Your task to perform on an android device: toggle airplane mode Image 0: 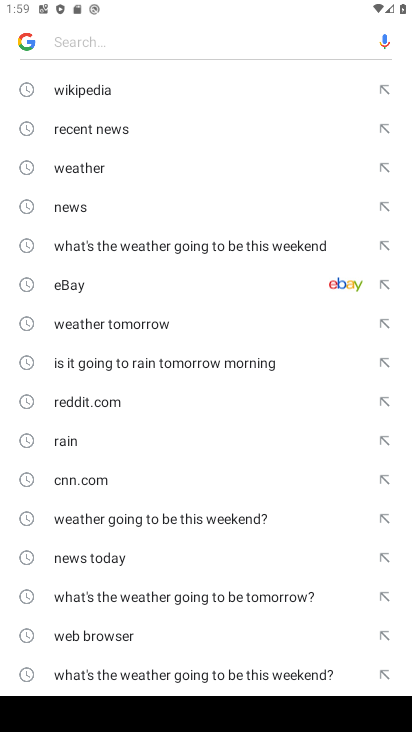
Step 0: press home button
Your task to perform on an android device: toggle airplane mode Image 1: 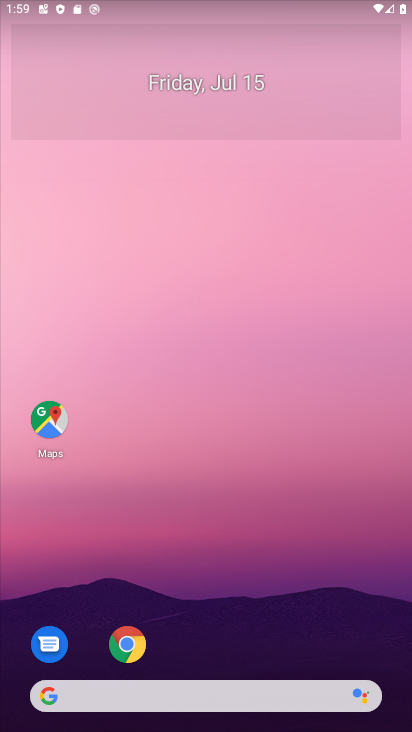
Step 1: drag from (10, 676) to (112, 255)
Your task to perform on an android device: toggle airplane mode Image 2: 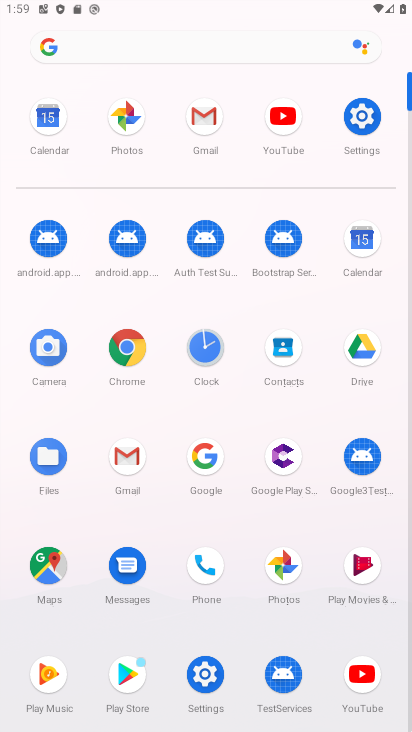
Step 2: click (361, 135)
Your task to perform on an android device: toggle airplane mode Image 3: 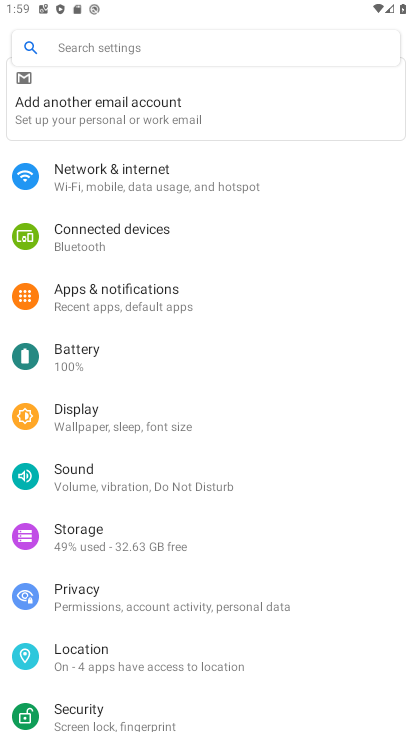
Step 3: click (147, 184)
Your task to perform on an android device: toggle airplane mode Image 4: 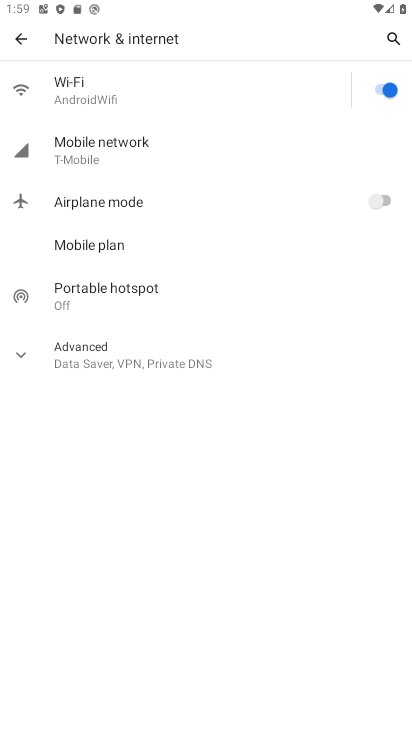
Step 4: click (344, 198)
Your task to perform on an android device: toggle airplane mode Image 5: 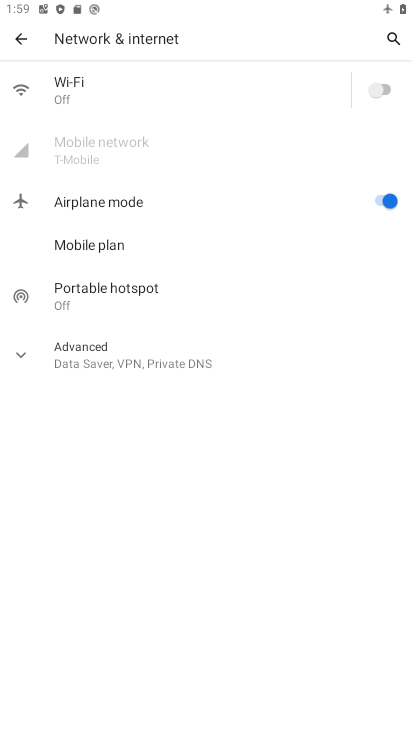
Step 5: task complete